Your task to perform on an android device: Go to network settings Image 0: 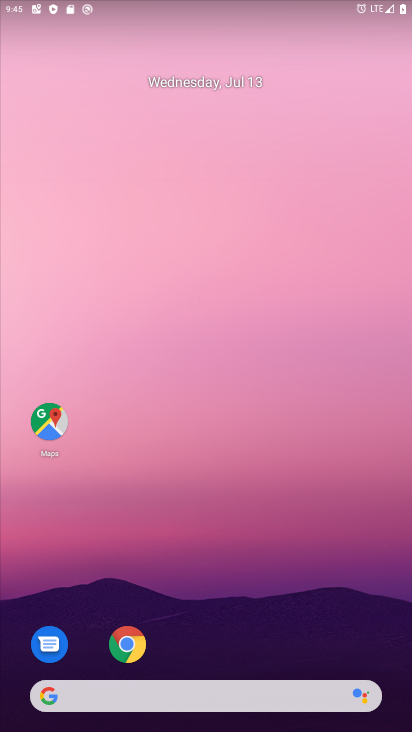
Step 0: drag from (210, 707) to (199, 103)
Your task to perform on an android device: Go to network settings Image 1: 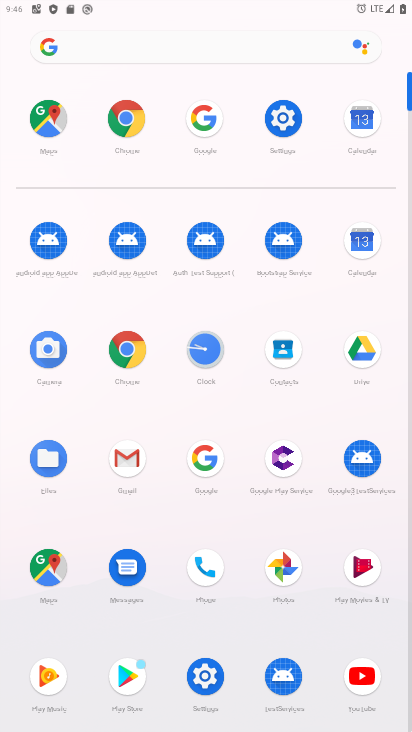
Step 1: click (286, 123)
Your task to perform on an android device: Go to network settings Image 2: 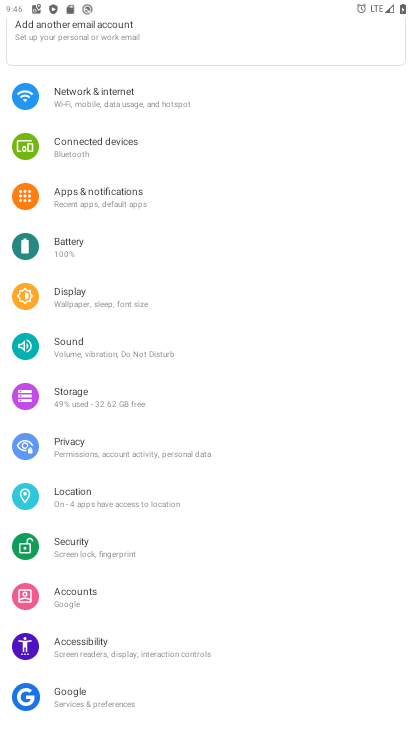
Step 2: click (100, 97)
Your task to perform on an android device: Go to network settings Image 3: 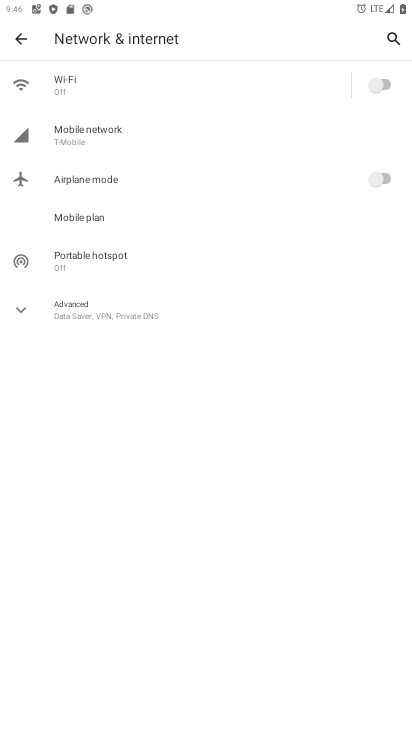
Step 3: click (78, 126)
Your task to perform on an android device: Go to network settings Image 4: 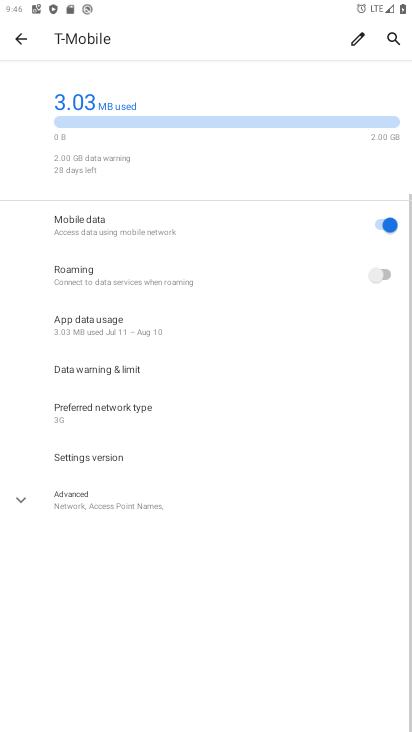
Step 4: task complete